Your task to perform on an android device: Open Maps and search for coffee Image 0: 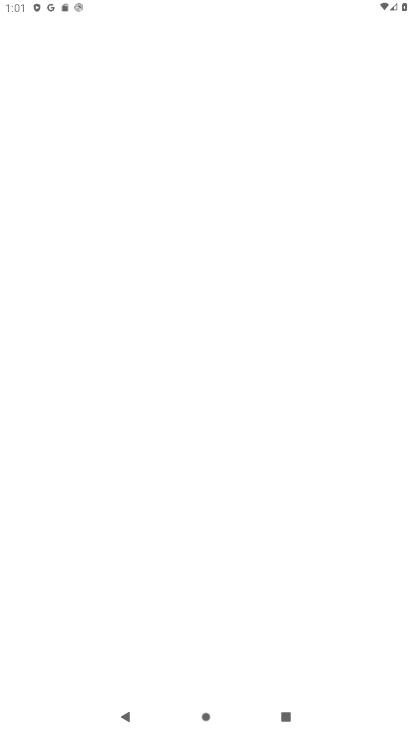
Step 0: press home button
Your task to perform on an android device: Open Maps and search for coffee Image 1: 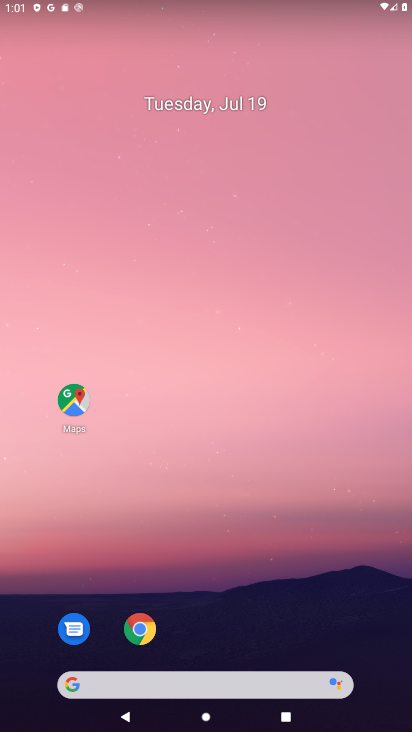
Step 1: click (79, 393)
Your task to perform on an android device: Open Maps and search for coffee Image 2: 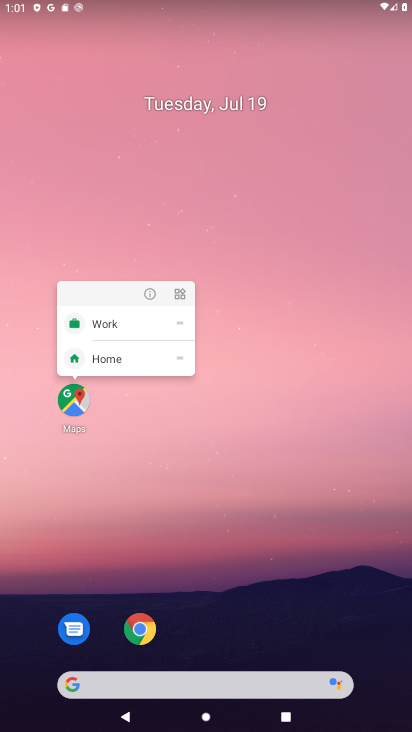
Step 2: click (78, 409)
Your task to perform on an android device: Open Maps and search for coffee Image 3: 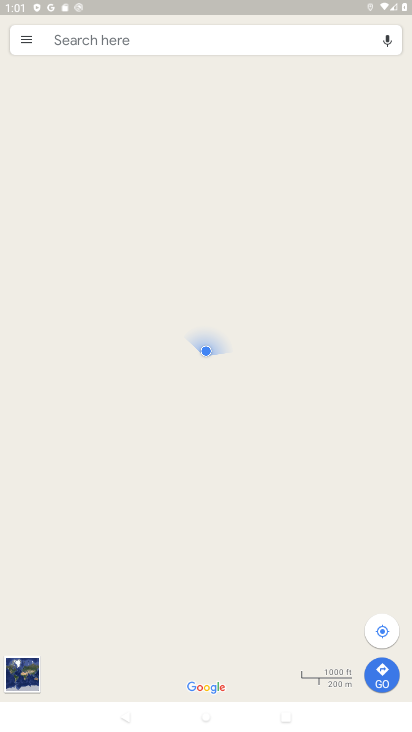
Step 3: click (235, 32)
Your task to perform on an android device: Open Maps and search for coffee Image 4: 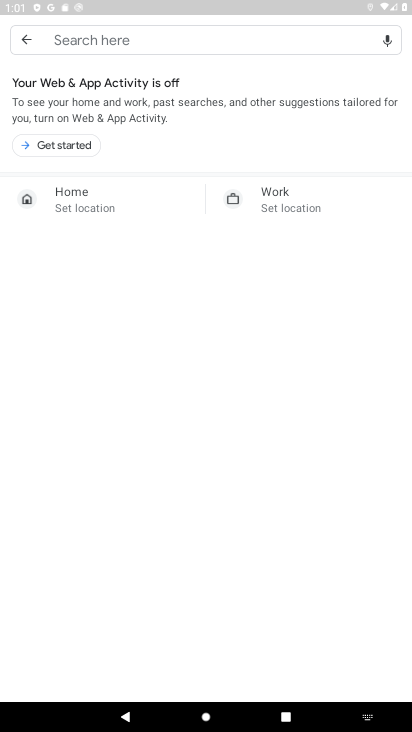
Step 4: type "coffee"
Your task to perform on an android device: Open Maps and search for coffee Image 5: 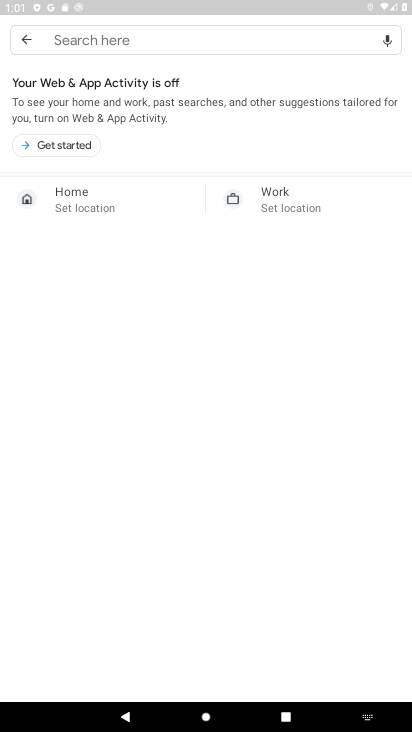
Step 5: click (145, 43)
Your task to perform on an android device: Open Maps and search for coffee Image 6: 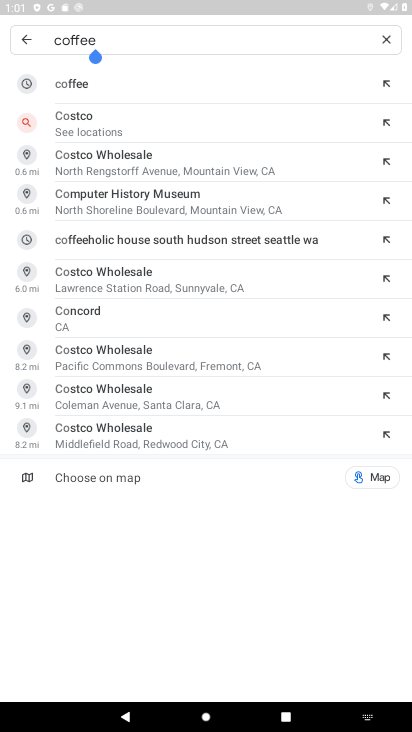
Step 6: click (95, 83)
Your task to perform on an android device: Open Maps and search for coffee Image 7: 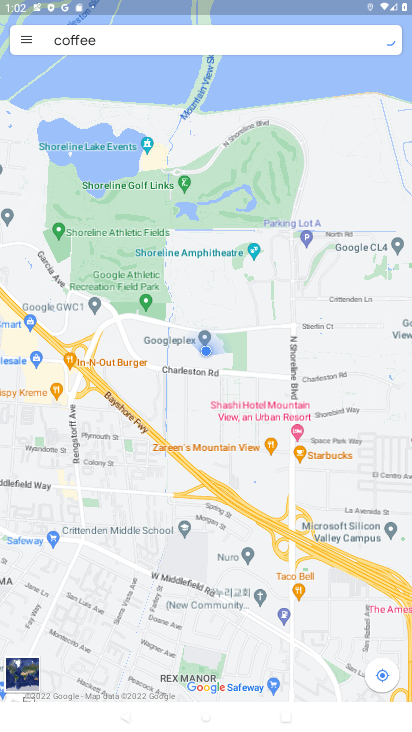
Step 7: task complete